Your task to perform on an android device: install app "Messenger Lite" Image 0: 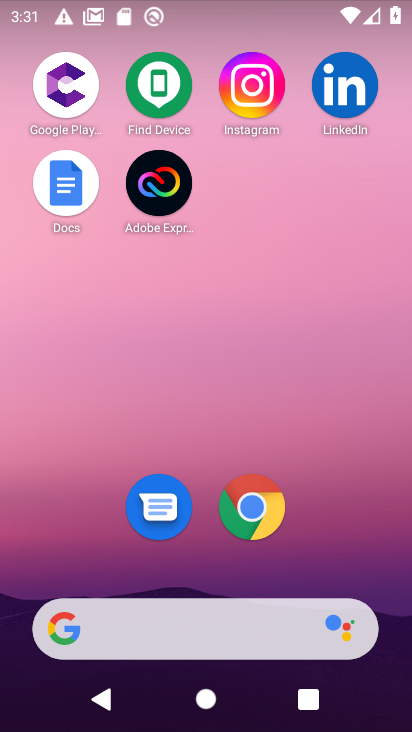
Step 0: drag from (84, 558) to (127, 121)
Your task to perform on an android device: install app "Messenger Lite" Image 1: 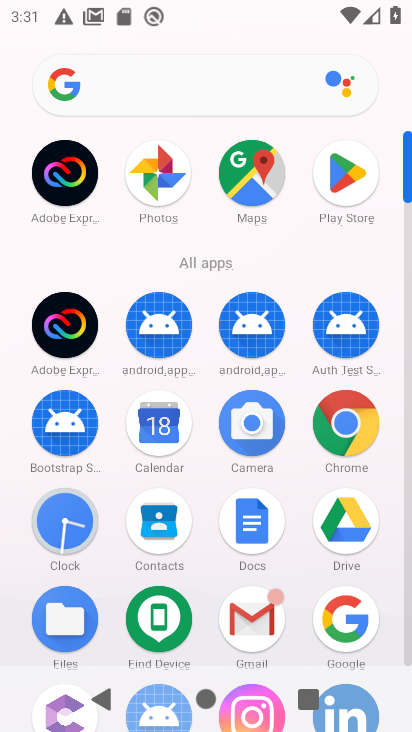
Step 1: click (327, 168)
Your task to perform on an android device: install app "Messenger Lite" Image 2: 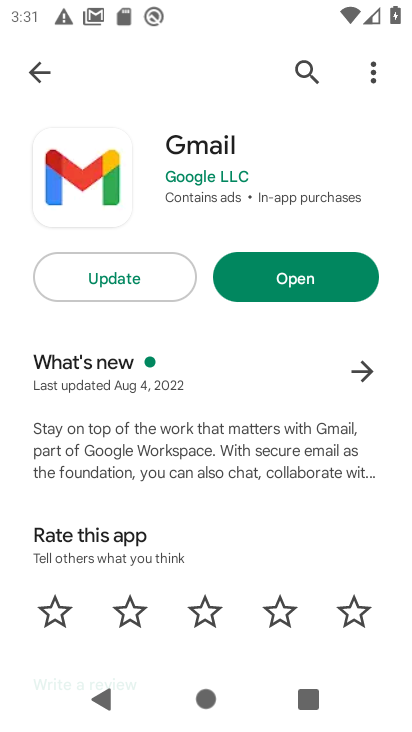
Step 2: click (303, 61)
Your task to perform on an android device: install app "Messenger Lite" Image 3: 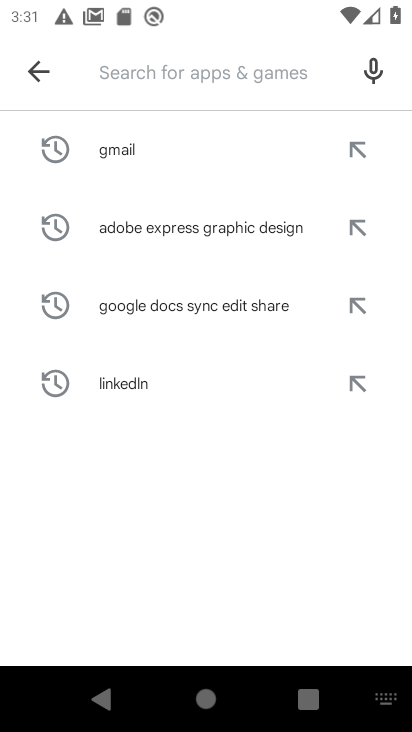
Step 3: click (108, 62)
Your task to perform on an android device: install app "Messenger Lite" Image 4: 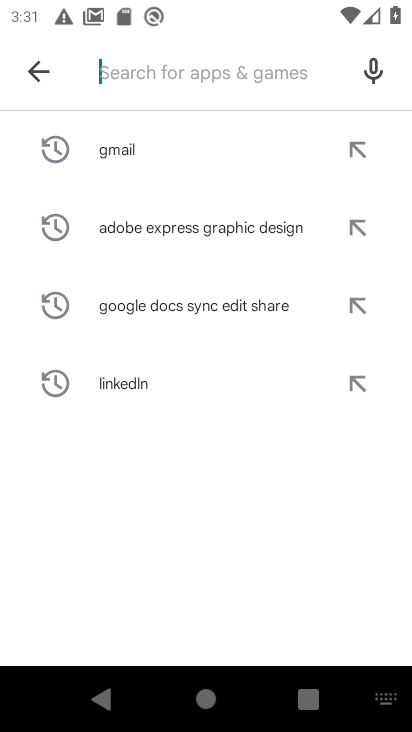
Step 4: type "Messenger Lite"
Your task to perform on an android device: install app "Messenger Lite" Image 5: 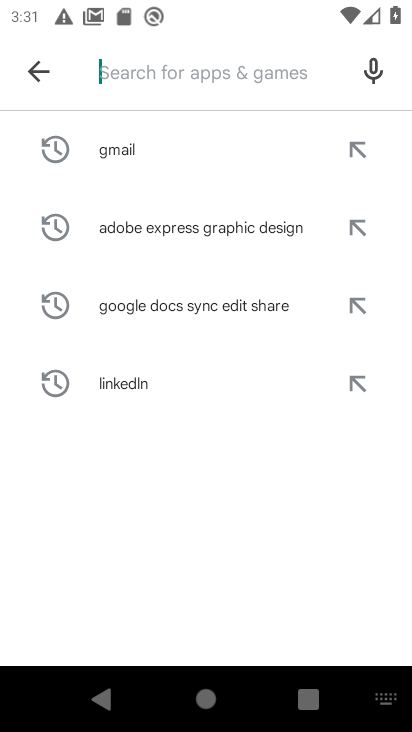
Step 5: click (148, 514)
Your task to perform on an android device: install app "Messenger Lite" Image 6: 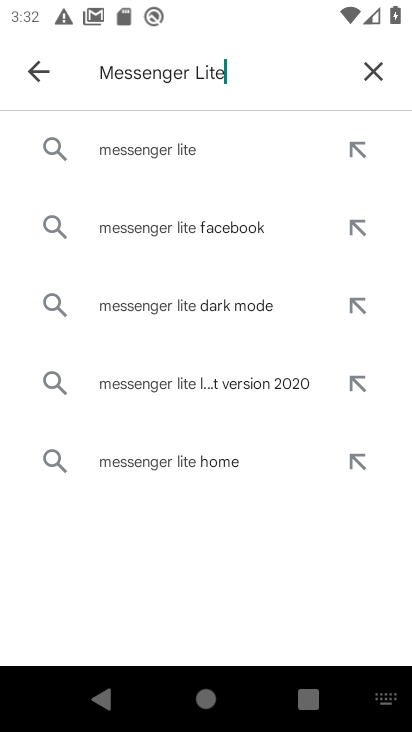
Step 6: click (143, 149)
Your task to perform on an android device: install app "Messenger Lite" Image 7: 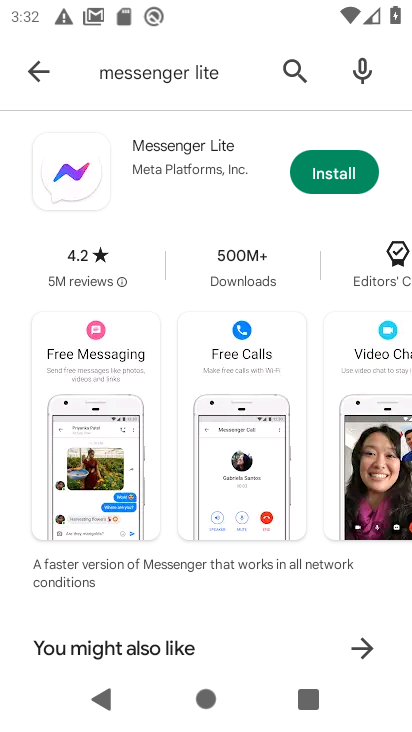
Step 7: click (331, 178)
Your task to perform on an android device: install app "Messenger Lite" Image 8: 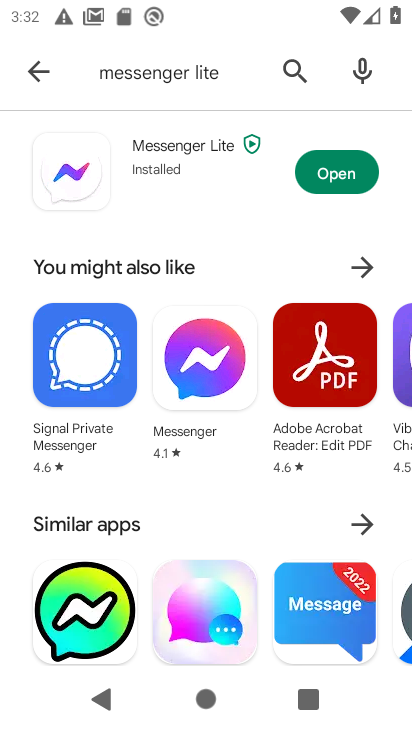
Step 8: task complete